Your task to perform on an android device: toggle javascript in the chrome app Image 0: 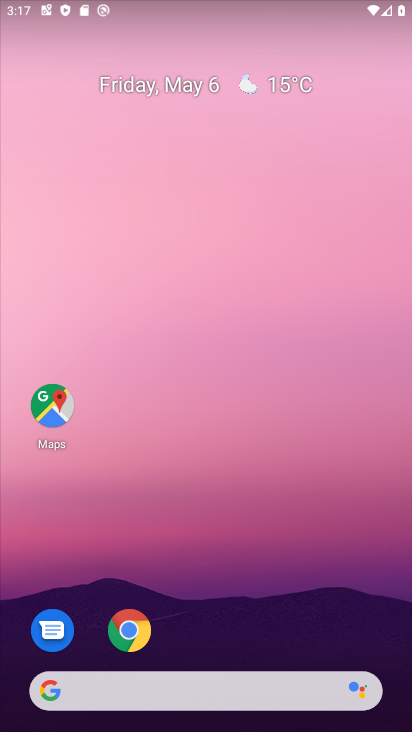
Step 0: click (136, 626)
Your task to perform on an android device: toggle javascript in the chrome app Image 1: 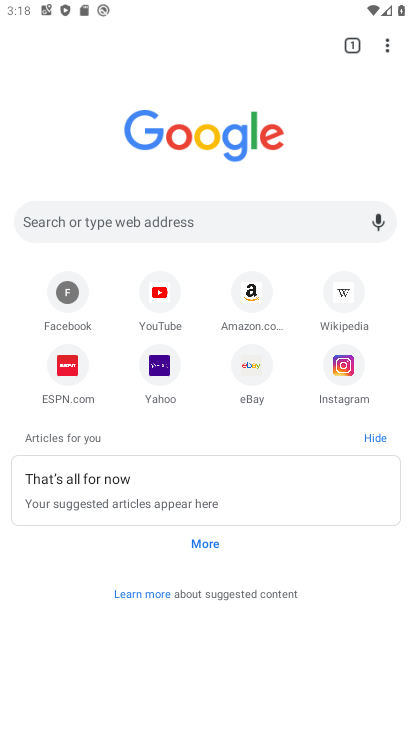
Step 1: click (380, 41)
Your task to perform on an android device: toggle javascript in the chrome app Image 2: 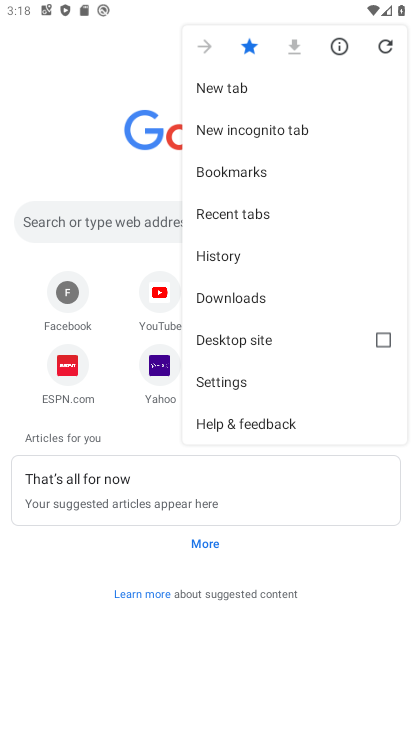
Step 2: click (264, 397)
Your task to perform on an android device: toggle javascript in the chrome app Image 3: 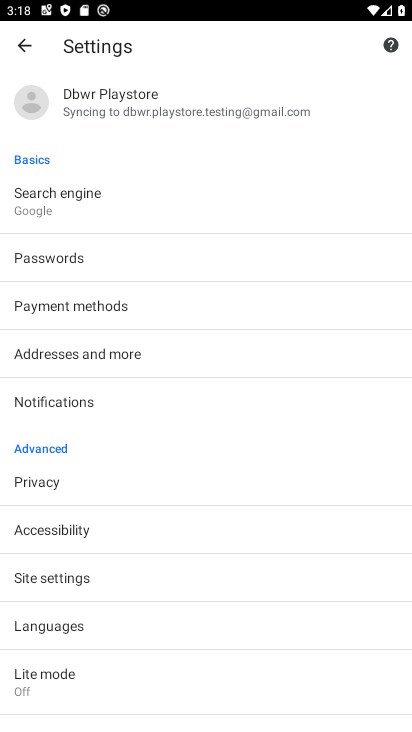
Step 3: click (64, 597)
Your task to perform on an android device: toggle javascript in the chrome app Image 4: 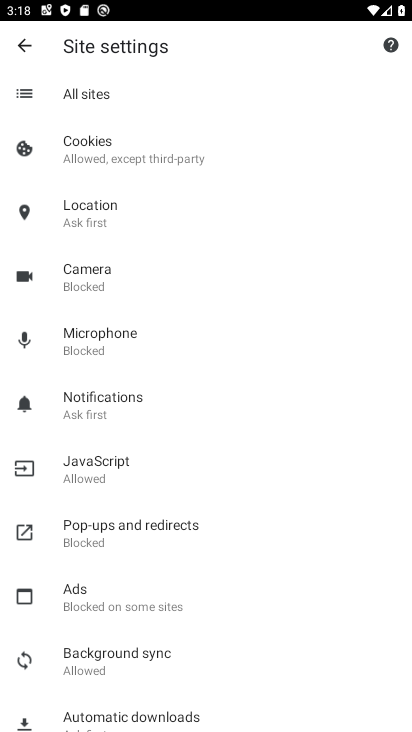
Step 4: click (82, 471)
Your task to perform on an android device: toggle javascript in the chrome app Image 5: 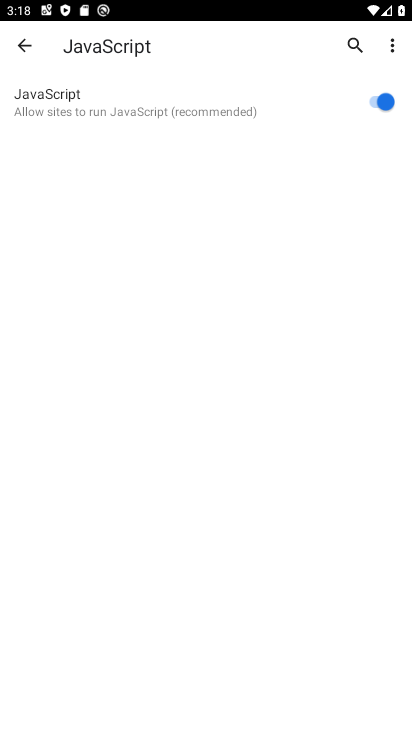
Step 5: click (380, 105)
Your task to perform on an android device: toggle javascript in the chrome app Image 6: 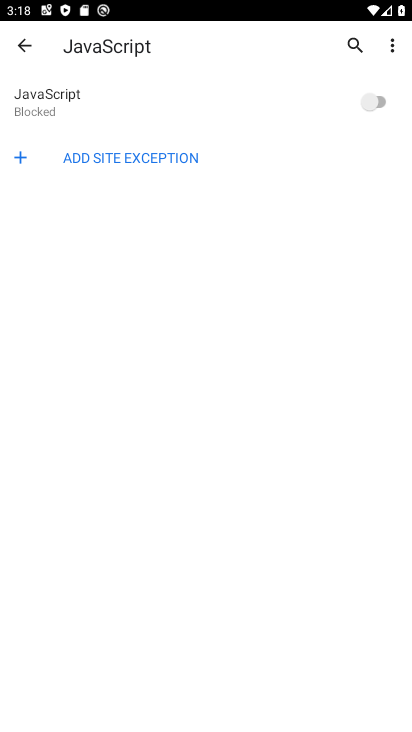
Step 6: click (379, 105)
Your task to perform on an android device: toggle javascript in the chrome app Image 7: 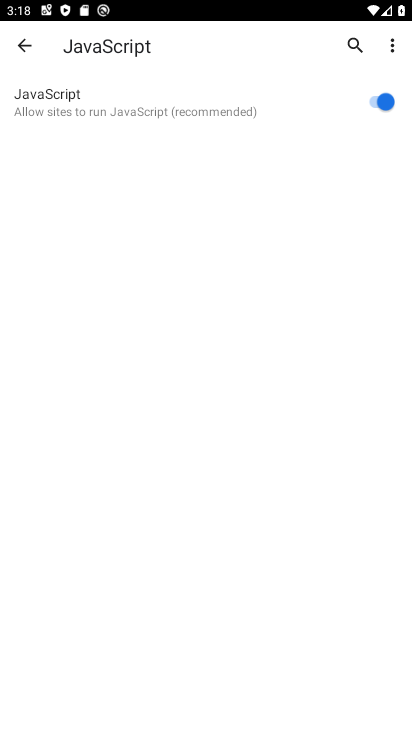
Step 7: task complete